Your task to perform on an android device: search for starred emails in the gmail app Image 0: 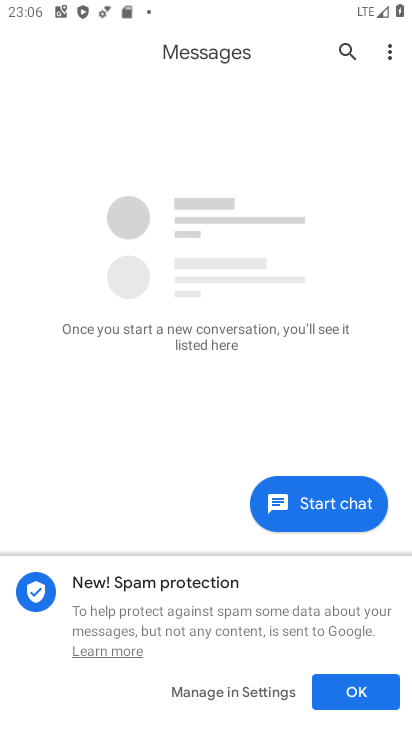
Step 0: press home button
Your task to perform on an android device: search for starred emails in the gmail app Image 1: 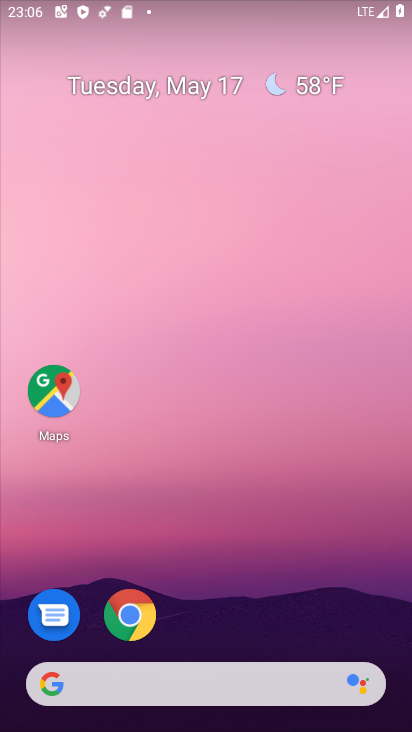
Step 1: drag from (218, 635) to (231, 265)
Your task to perform on an android device: search for starred emails in the gmail app Image 2: 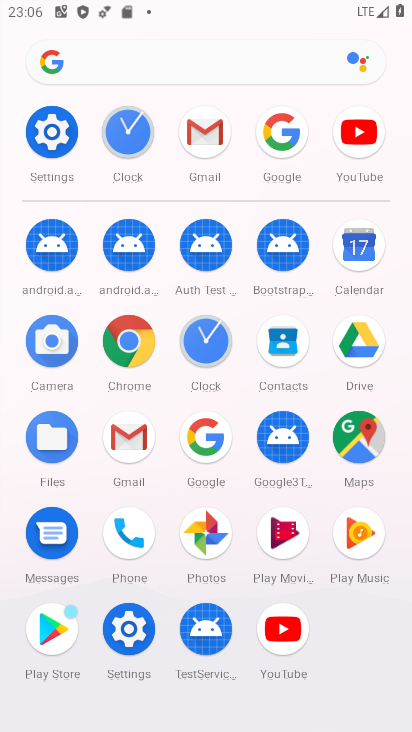
Step 2: click (134, 448)
Your task to perform on an android device: search for starred emails in the gmail app Image 3: 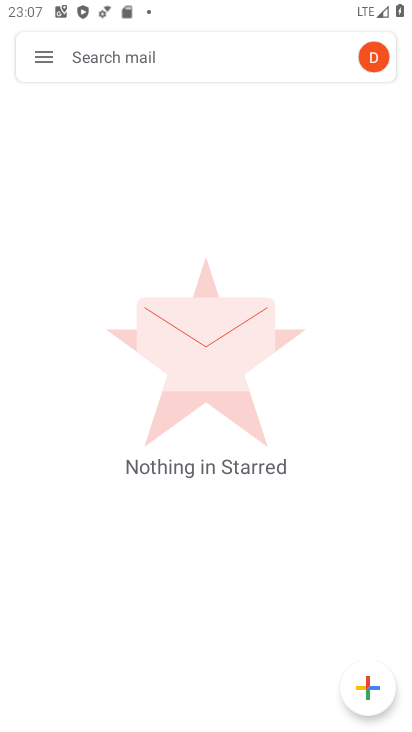
Step 3: click (35, 53)
Your task to perform on an android device: search for starred emails in the gmail app Image 4: 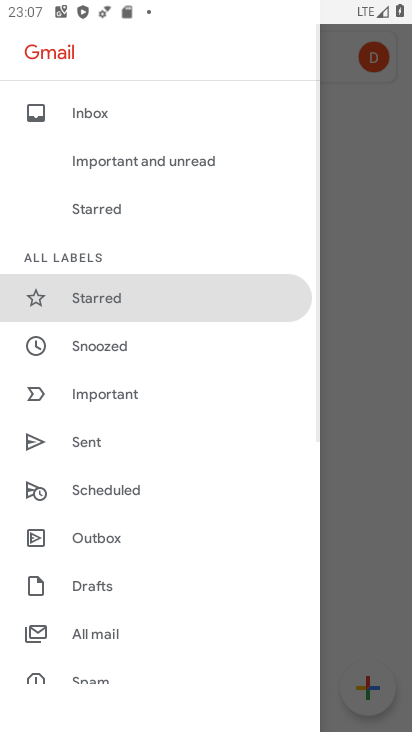
Step 4: click (107, 299)
Your task to perform on an android device: search for starred emails in the gmail app Image 5: 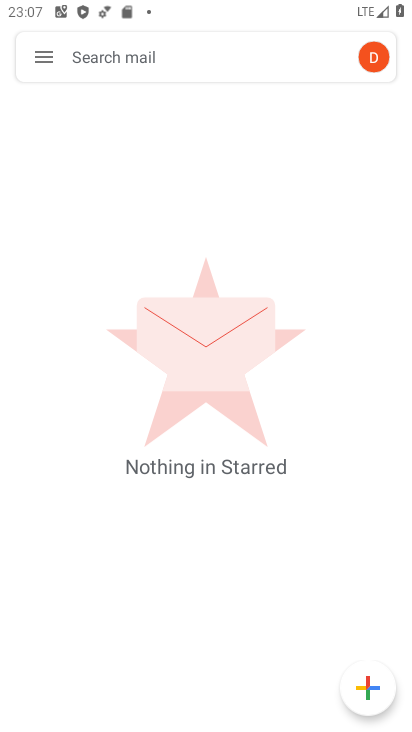
Step 5: task complete